Your task to perform on an android device: open app "Adobe Acrobat Reader: Edit PDF" (install if not already installed) and go to login screen Image 0: 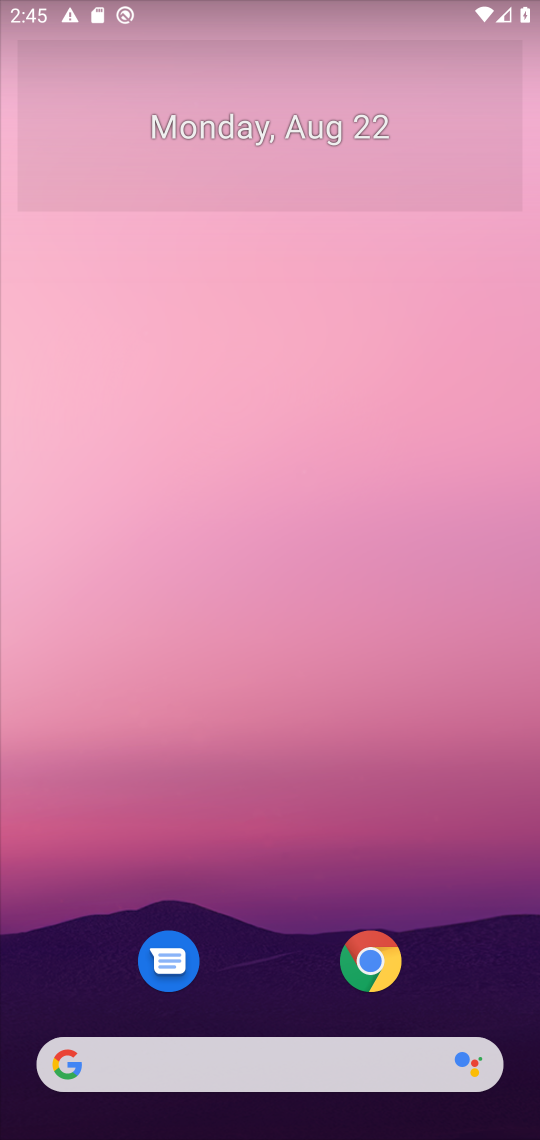
Step 0: press home button
Your task to perform on an android device: open app "Adobe Acrobat Reader: Edit PDF" (install if not already installed) and go to login screen Image 1: 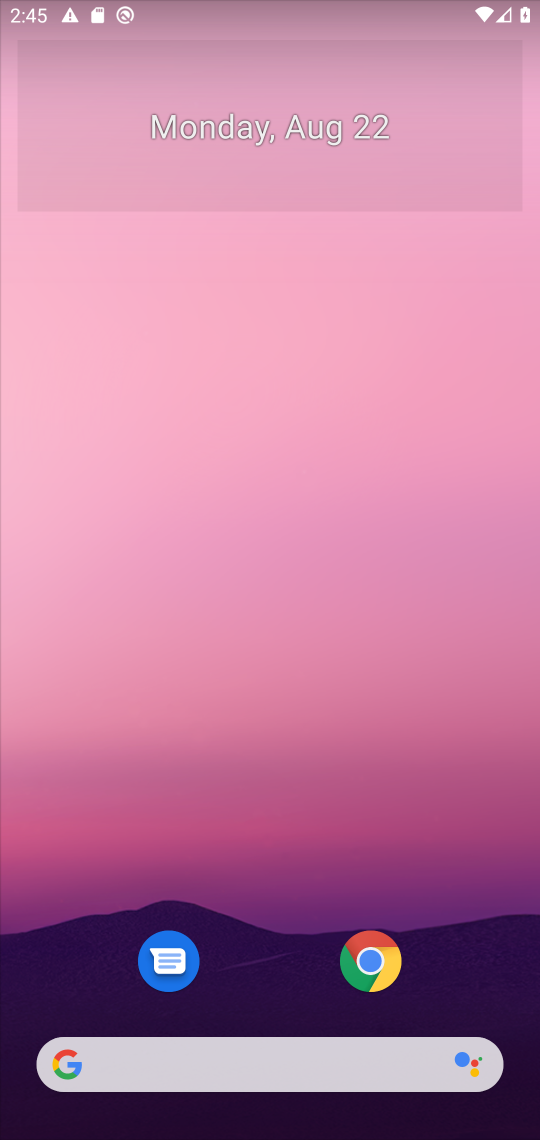
Step 1: drag from (464, 983) to (491, 181)
Your task to perform on an android device: open app "Adobe Acrobat Reader: Edit PDF" (install if not already installed) and go to login screen Image 2: 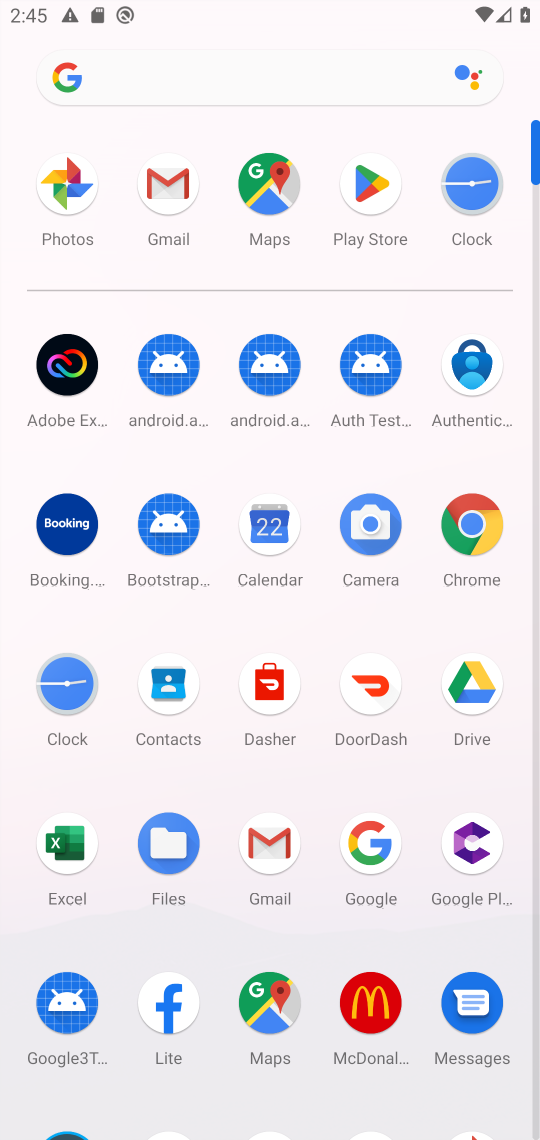
Step 2: click (371, 185)
Your task to perform on an android device: open app "Adobe Acrobat Reader: Edit PDF" (install if not already installed) and go to login screen Image 3: 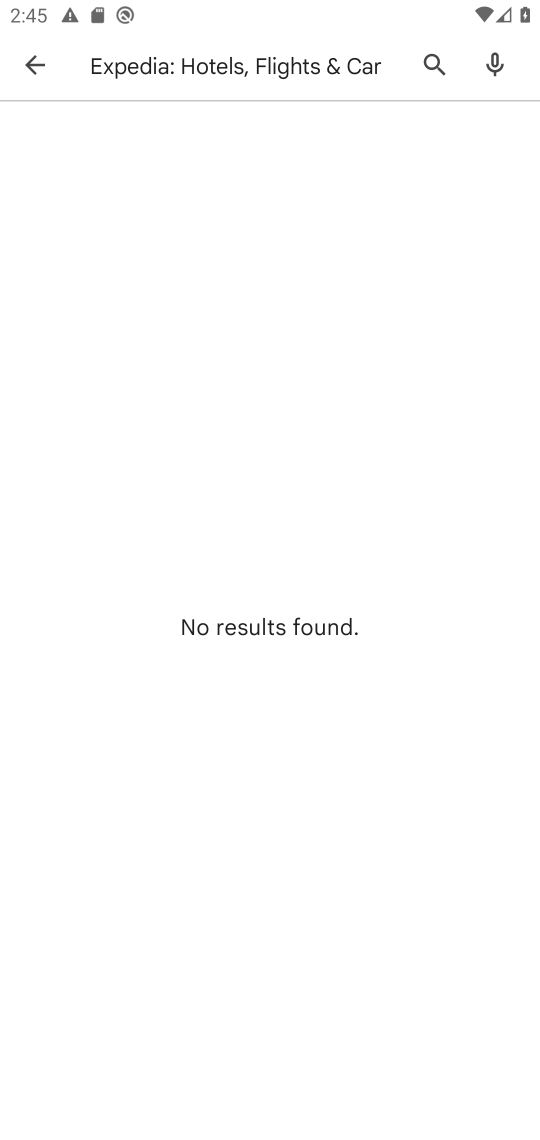
Step 3: press back button
Your task to perform on an android device: open app "Adobe Acrobat Reader: Edit PDF" (install if not already installed) and go to login screen Image 4: 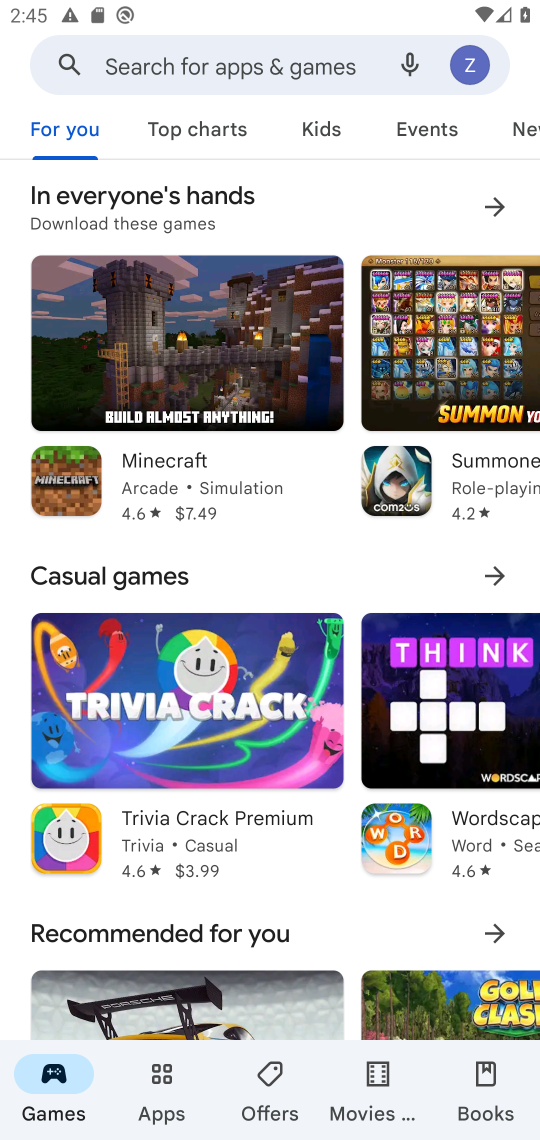
Step 4: click (303, 58)
Your task to perform on an android device: open app "Adobe Acrobat Reader: Edit PDF" (install if not already installed) and go to login screen Image 5: 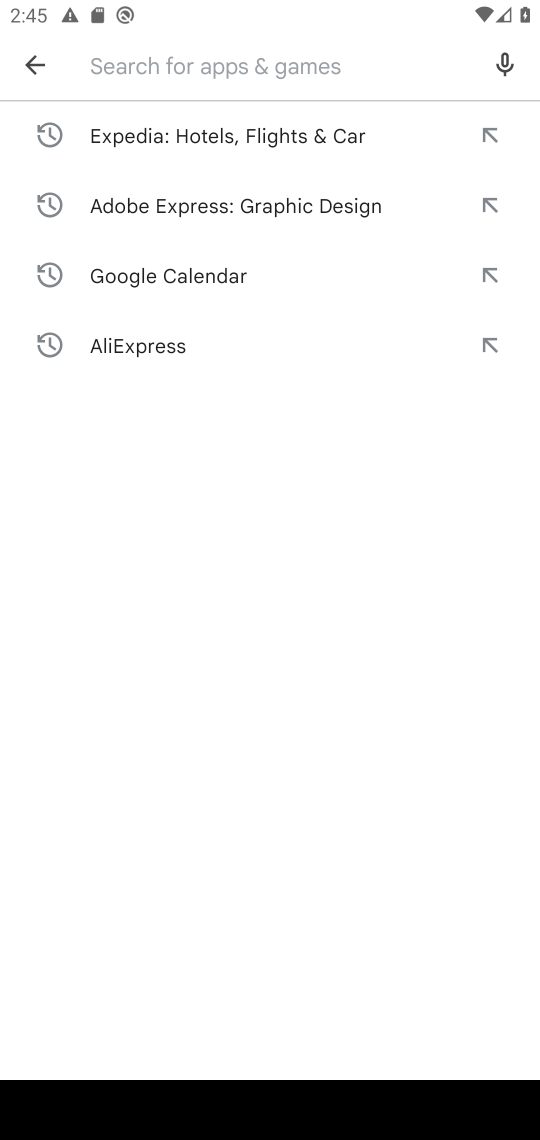
Step 5: type "Adobe Acrobat Reader: Edit PDF"
Your task to perform on an android device: open app "Adobe Acrobat Reader: Edit PDF" (install if not already installed) and go to login screen Image 6: 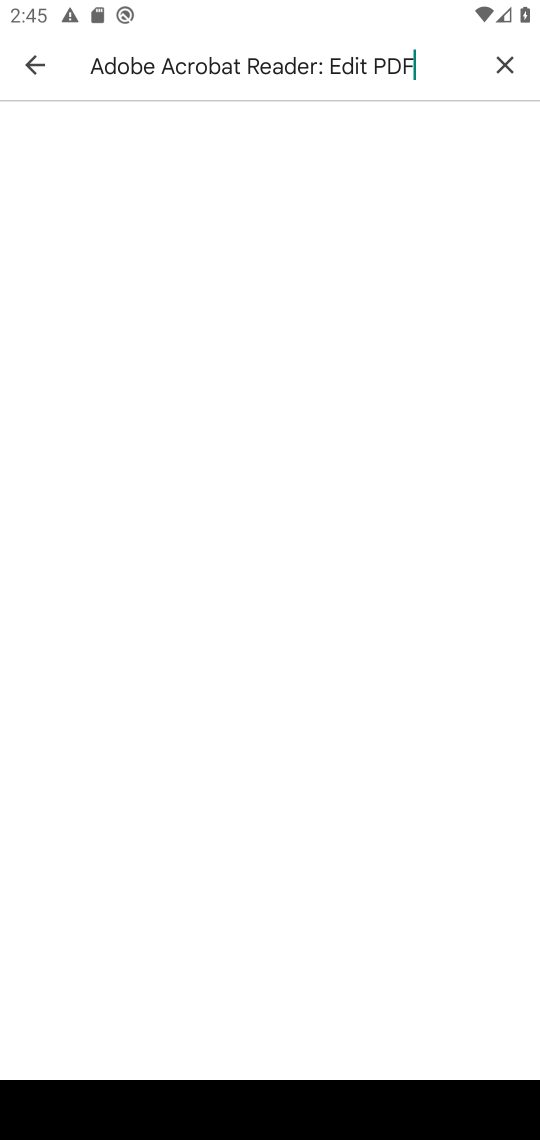
Step 6: press enter
Your task to perform on an android device: open app "Adobe Acrobat Reader: Edit PDF" (install if not already installed) and go to login screen Image 7: 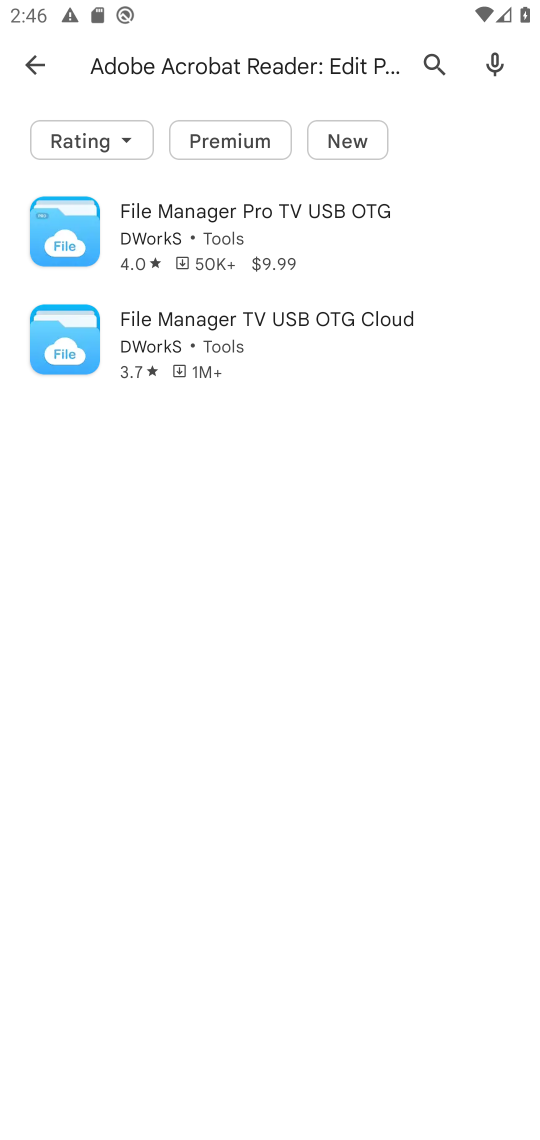
Step 7: task complete